Your task to perform on an android device: open the mobile data screen to see how much data has been used Image 0: 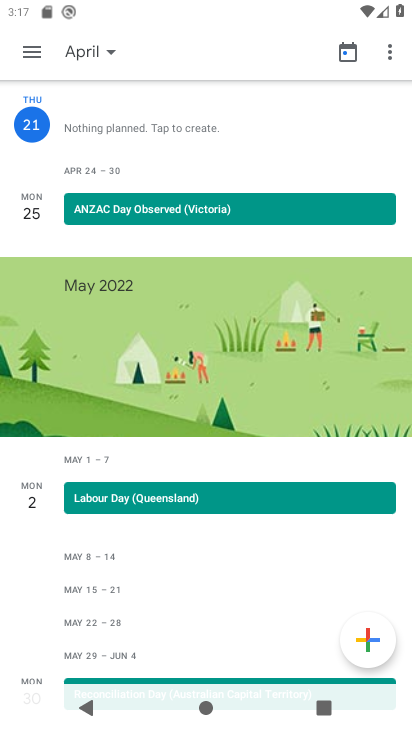
Step 0: press home button
Your task to perform on an android device: open the mobile data screen to see how much data has been used Image 1: 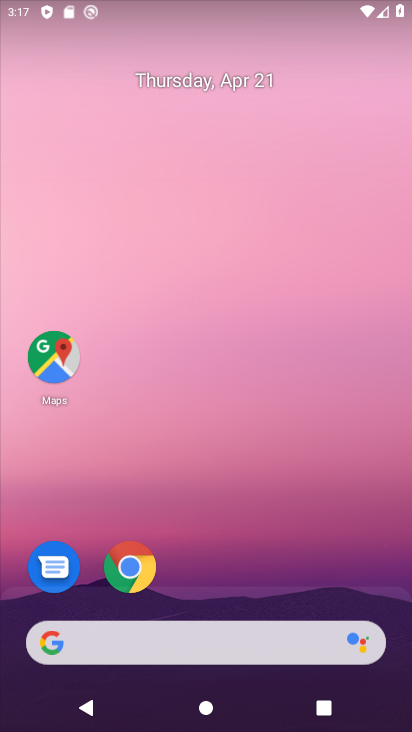
Step 1: drag from (211, 602) to (210, 2)
Your task to perform on an android device: open the mobile data screen to see how much data has been used Image 2: 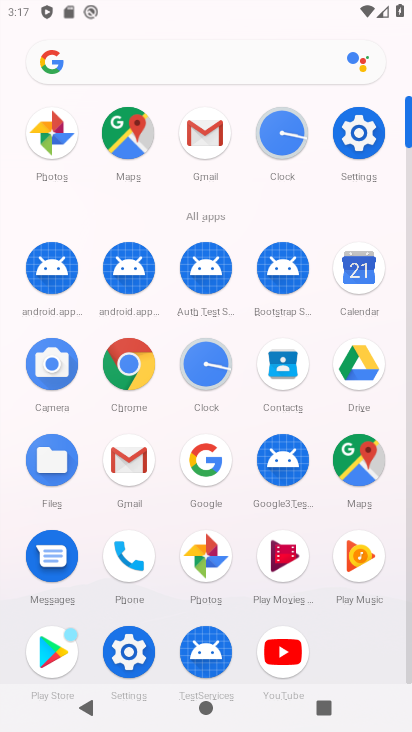
Step 2: click (356, 127)
Your task to perform on an android device: open the mobile data screen to see how much data has been used Image 3: 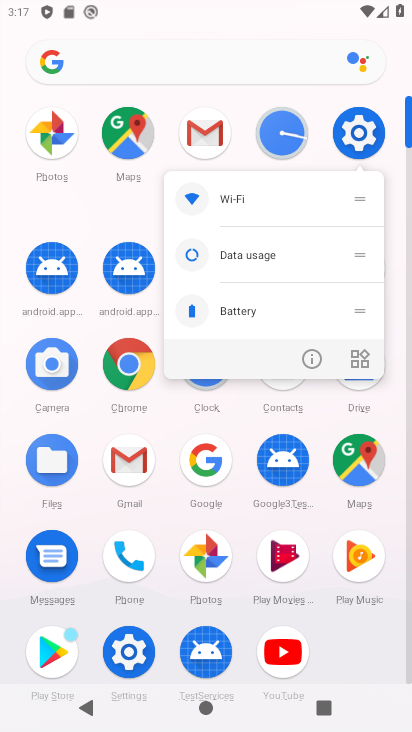
Step 3: click (356, 128)
Your task to perform on an android device: open the mobile data screen to see how much data has been used Image 4: 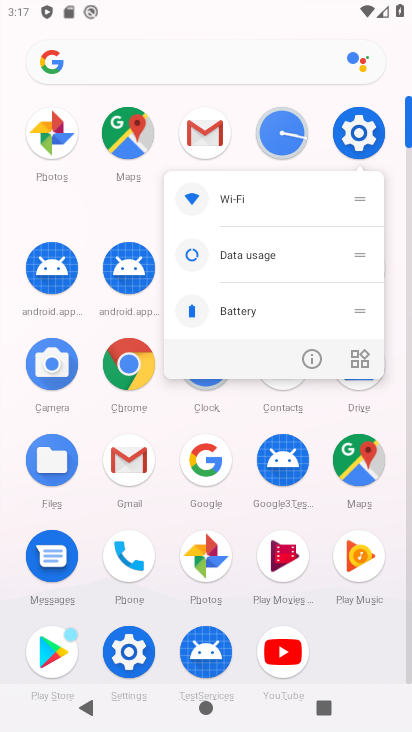
Step 4: click (359, 129)
Your task to perform on an android device: open the mobile data screen to see how much data has been used Image 5: 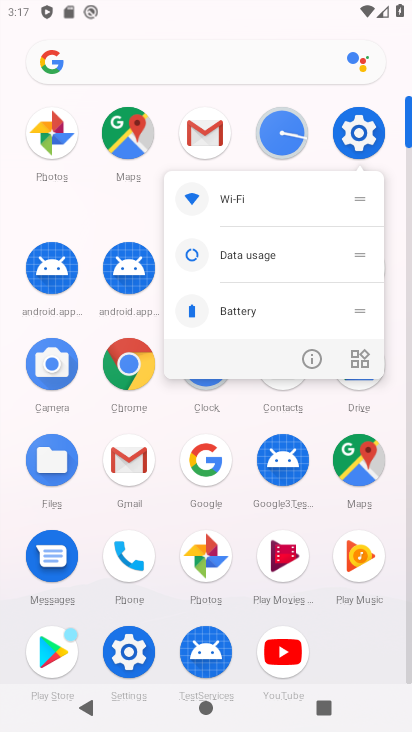
Step 5: click (358, 126)
Your task to perform on an android device: open the mobile data screen to see how much data has been used Image 6: 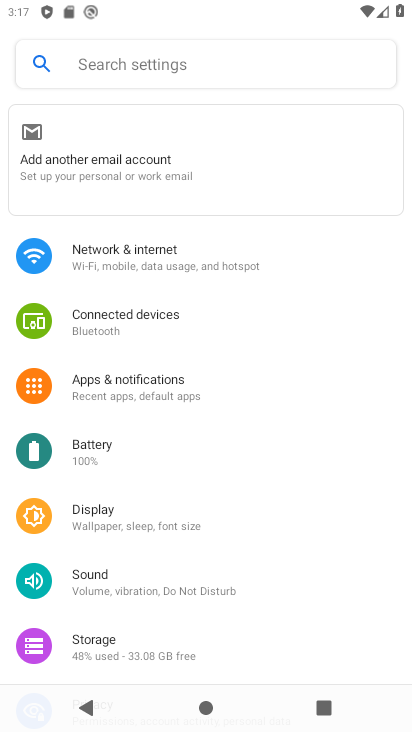
Step 6: click (190, 248)
Your task to perform on an android device: open the mobile data screen to see how much data has been used Image 7: 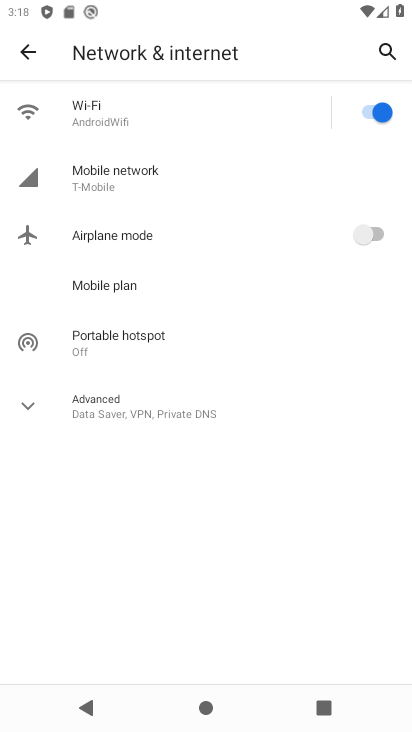
Step 7: click (145, 183)
Your task to perform on an android device: open the mobile data screen to see how much data has been used Image 8: 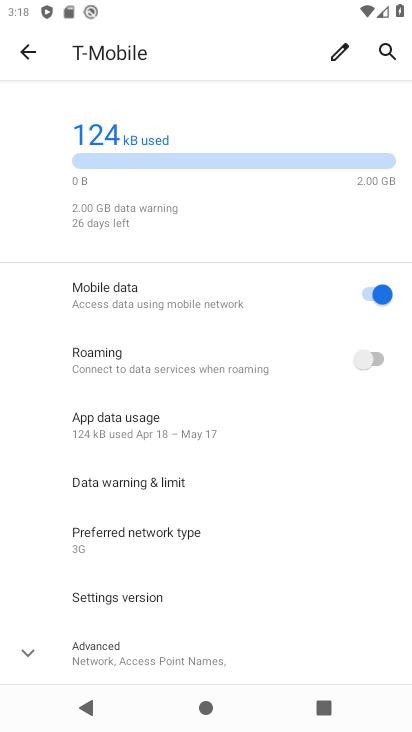
Step 8: click (174, 417)
Your task to perform on an android device: open the mobile data screen to see how much data has been used Image 9: 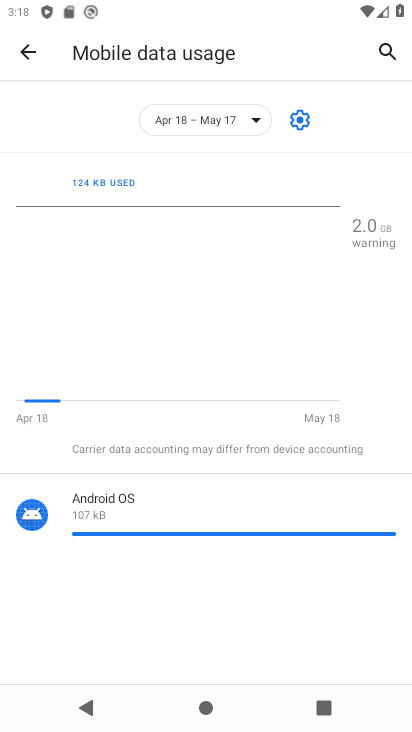
Step 9: task complete